Your task to perform on an android device: Find coffee shops on Maps Image 0: 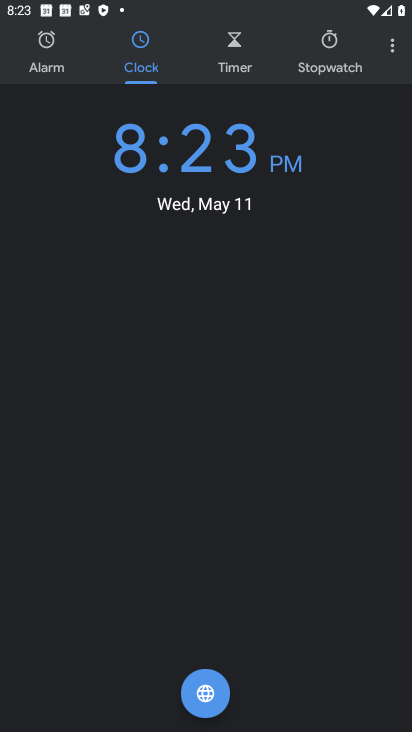
Step 0: press home button
Your task to perform on an android device: Find coffee shops on Maps Image 1: 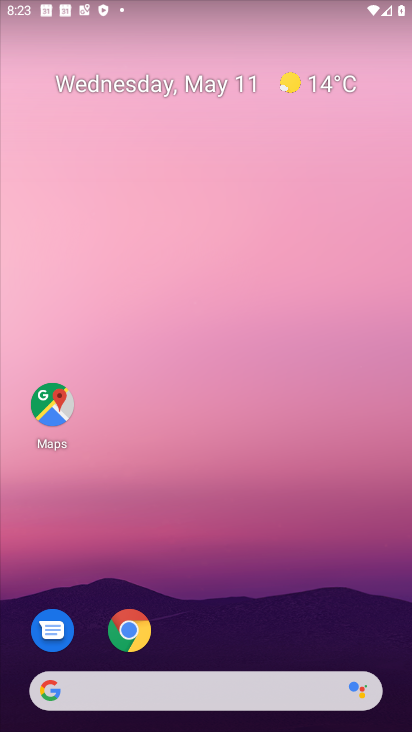
Step 1: click (55, 381)
Your task to perform on an android device: Find coffee shops on Maps Image 2: 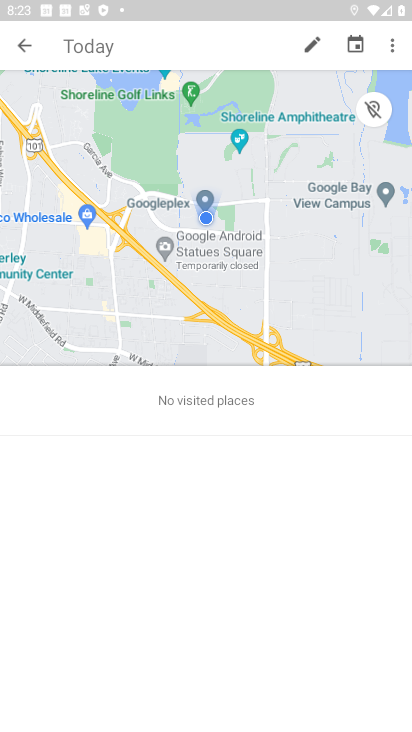
Step 2: click (29, 40)
Your task to perform on an android device: Find coffee shops on Maps Image 3: 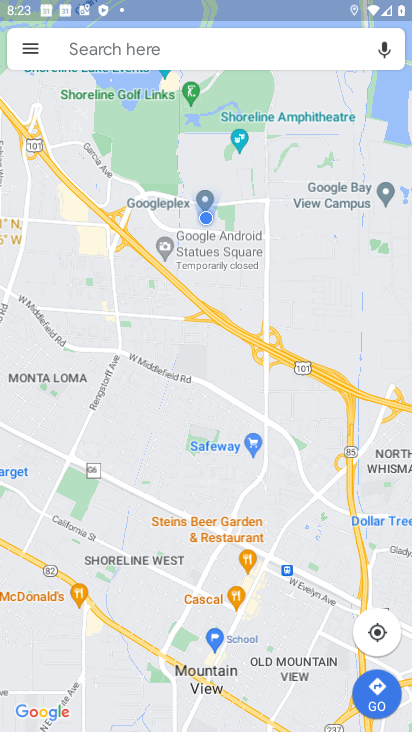
Step 3: click (109, 43)
Your task to perform on an android device: Find coffee shops on Maps Image 4: 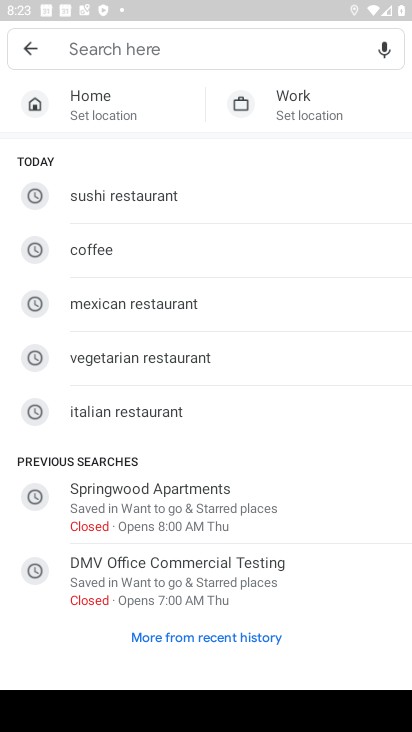
Step 4: click (132, 258)
Your task to perform on an android device: Find coffee shops on Maps Image 5: 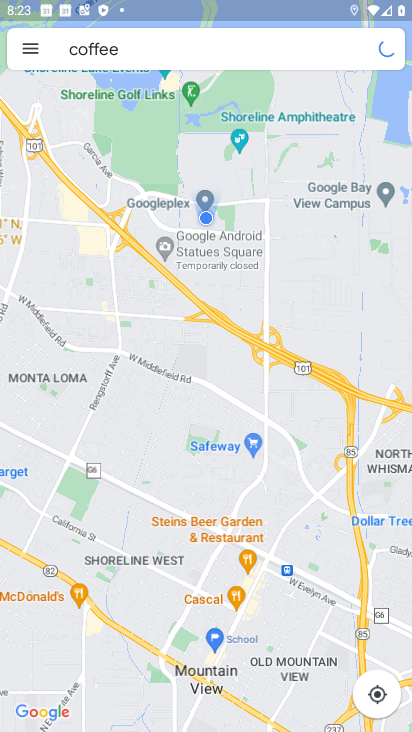
Step 5: task complete